Your task to perform on an android device: add a contact Image 0: 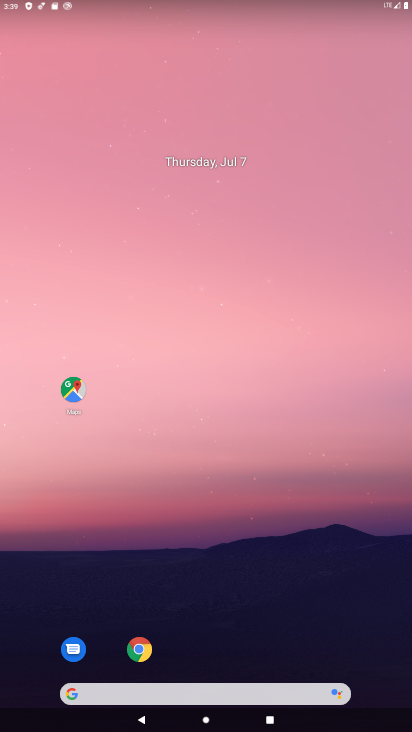
Step 0: drag from (299, 594) to (330, 371)
Your task to perform on an android device: add a contact Image 1: 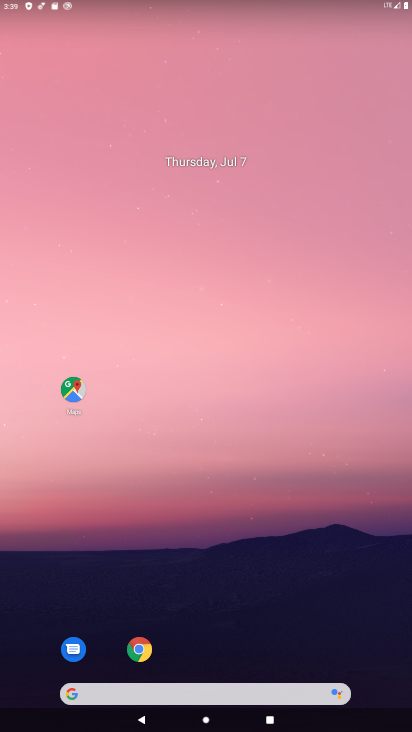
Step 1: drag from (154, 677) to (239, 241)
Your task to perform on an android device: add a contact Image 2: 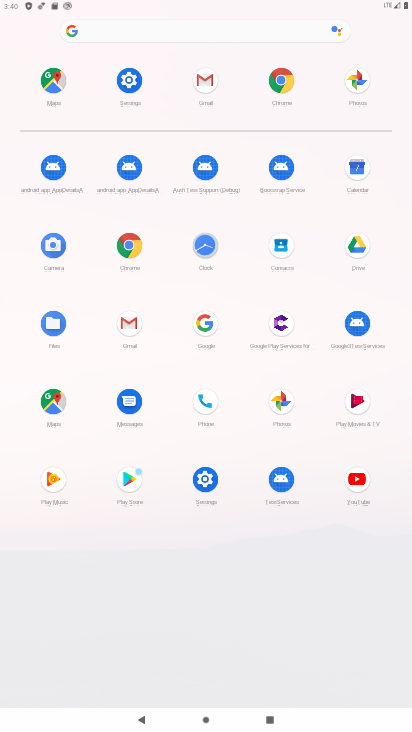
Step 2: click (284, 251)
Your task to perform on an android device: add a contact Image 3: 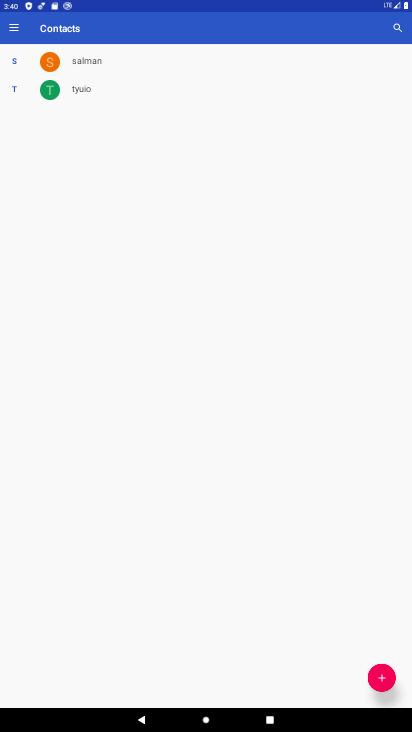
Step 3: click (373, 677)
Your task to perform on an android device: add a contact Image 4: 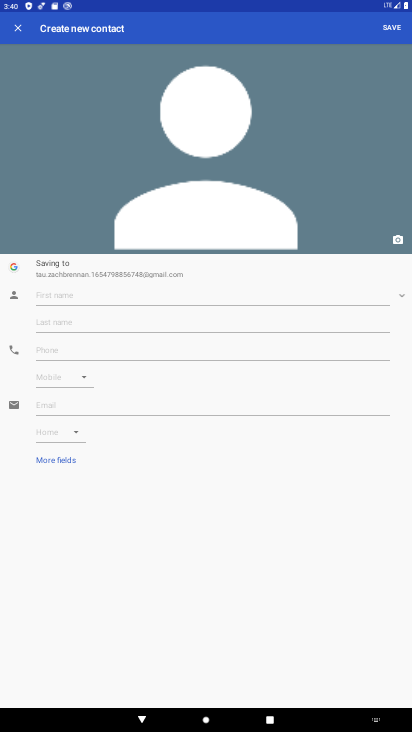
Step 4: click (141, 293)
Your task to perform on an android device: add a contact Image 5: 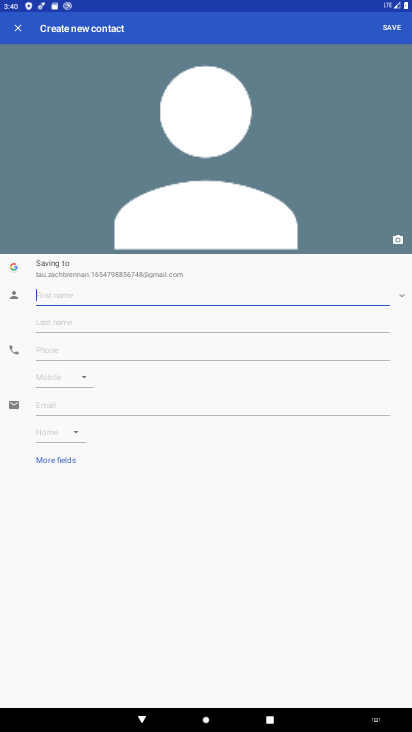
Step 5: type "uyfytigt"
Your task to perform on an android device: add a contact Image 6: 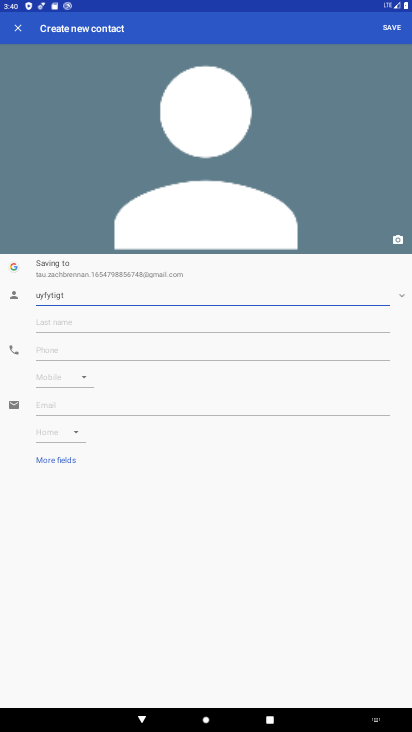
Step 6: click (123, 350)
Your task to perform on an android device: add a contact Image 7: 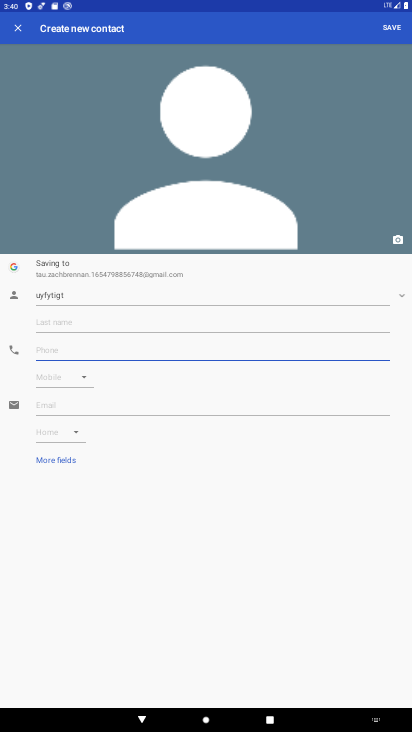
Step 7: type "9867458687"
Your task to perform on an android device: add a contact Image 8: 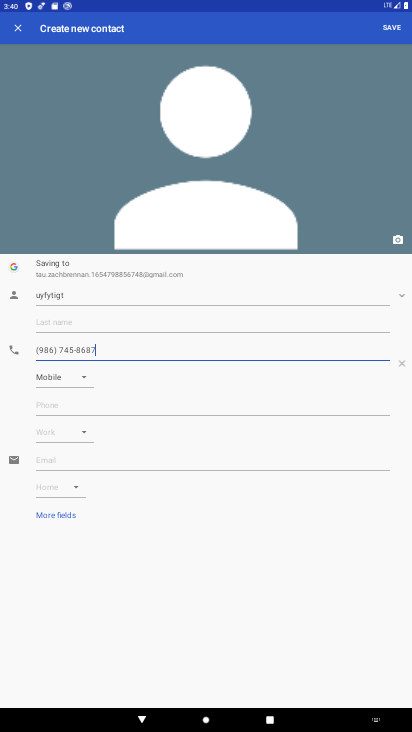
Step 8: click (384, 27)
Your task to perform on an android device: add a contact Image 9: 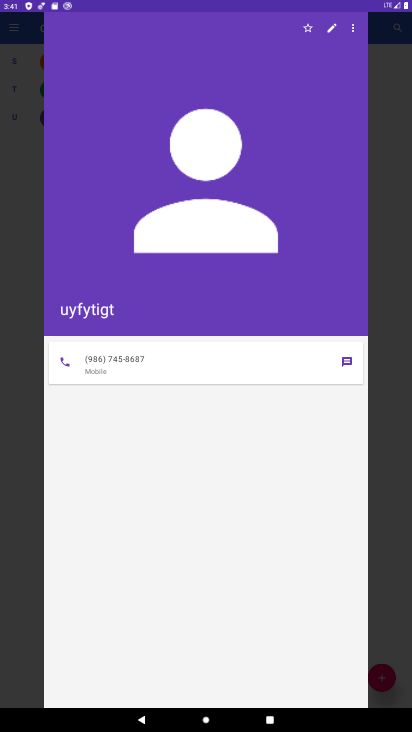
Step 9: task complete